Your task to perform on an android device: Open ESPN.com Image 0: 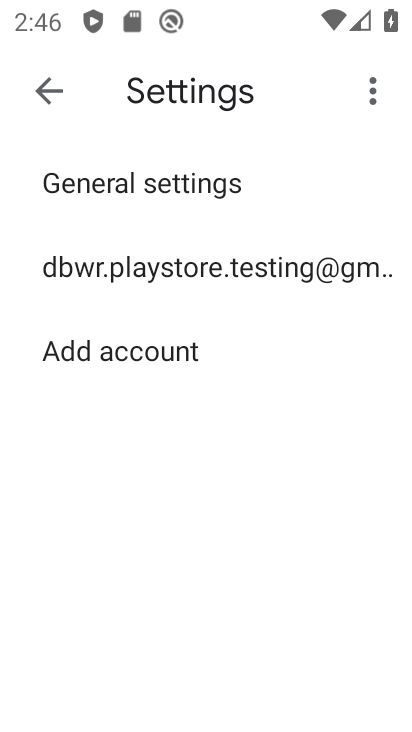
Step 0: press back button
Your task to perform on an android device: Open ESPN.com Image 1: 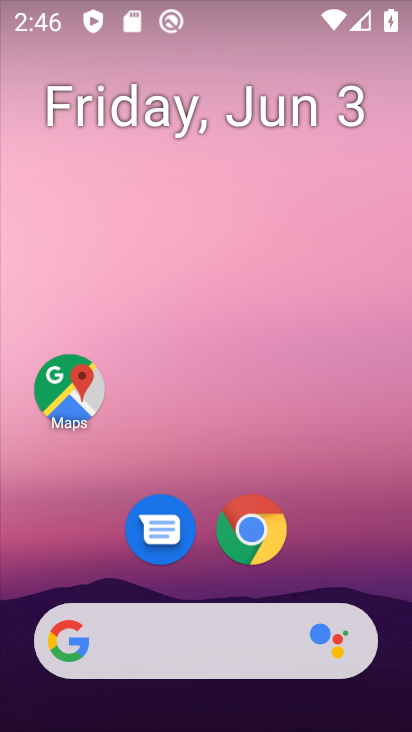
Step 1: click (266, 530)
Your task to perform on an android device: Open ESPN.com Image 2: 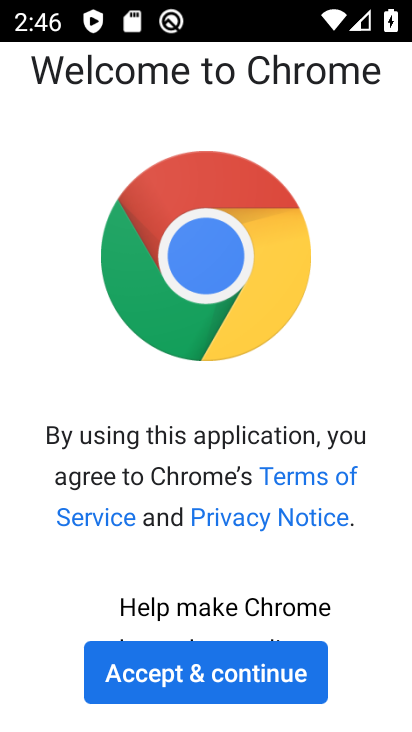
Step 2: click (217, 634)
Your task to perform on an android device: Open ESPN.com Image 3: 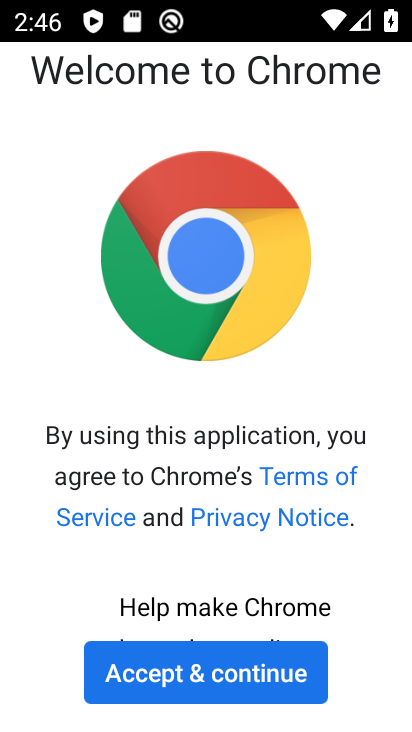
Step 3: click (217, 662)
Your task to perform on an android device: Open ESPN.com Image 4: 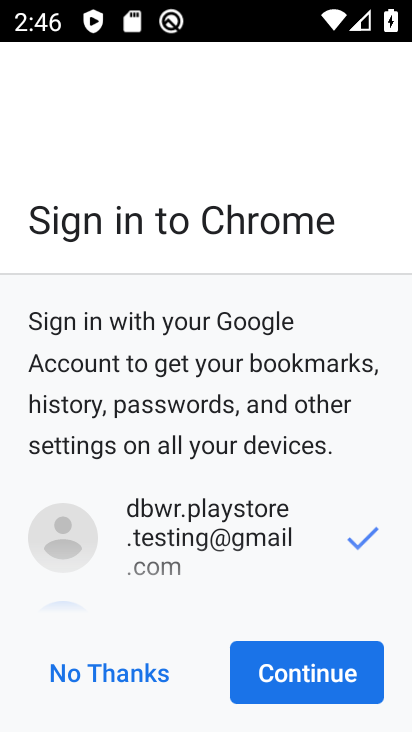
Step 4: click (292, 659)
Your task to perform on an android device: Open ESPN.com Image 5: 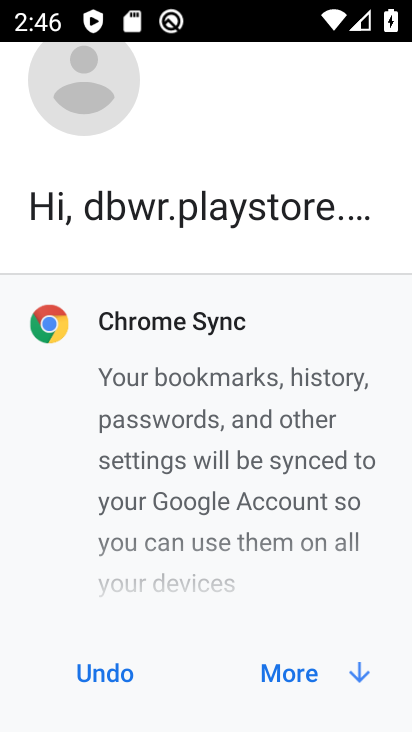
Step 5: click (295, 673)
Your task to perform on an android device: Open ESPN.com Image 6: 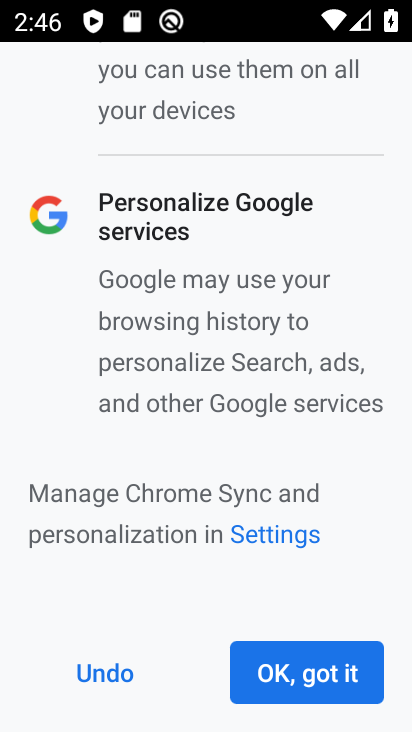
Step 6: click (295, 673)
Your task to perform on an android device: Open ESPN.com Image 7: 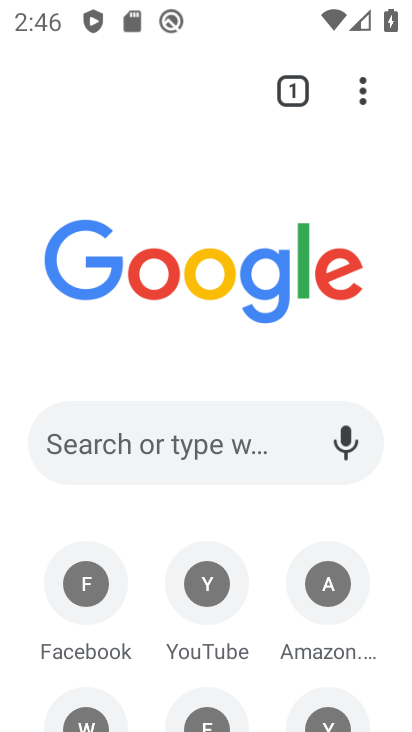
Step 7: click (126, 475)
Your task to perform on an android device: Open ESPN.com Image 8: 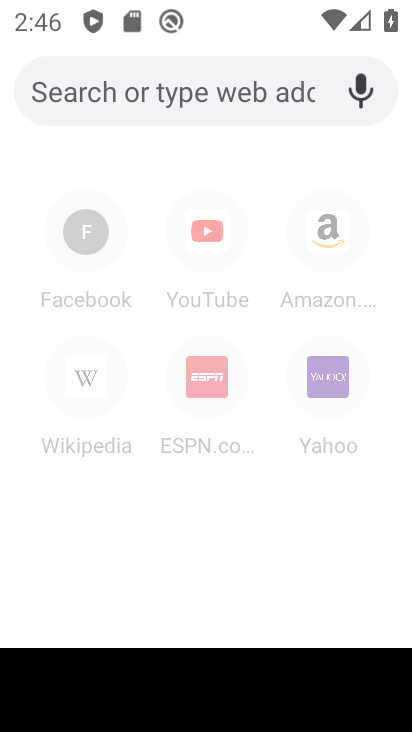
Step 8: type "ESPN.com"
Your task to perform on an android device: Open ESPN.com Image 9: 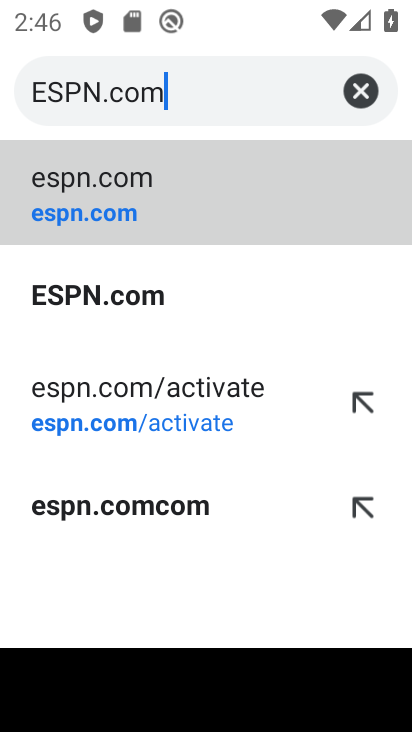
Step 9: click (125, 303)
Your task to perform on an android device: Open ESPN.com Image 10: 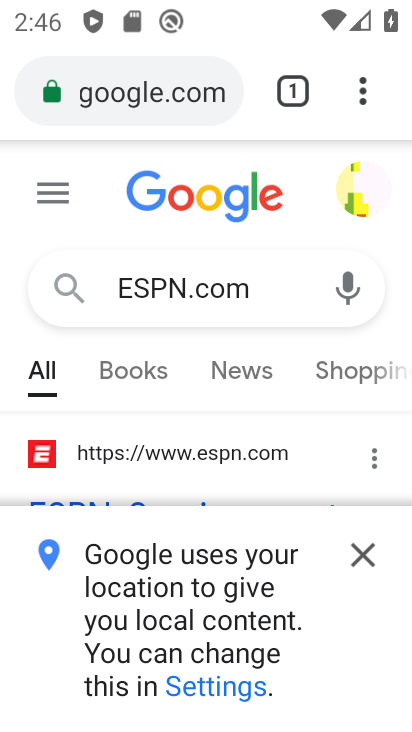
Step 10: task complete